Your task to perform on an android device: Open internet settings Image 0: 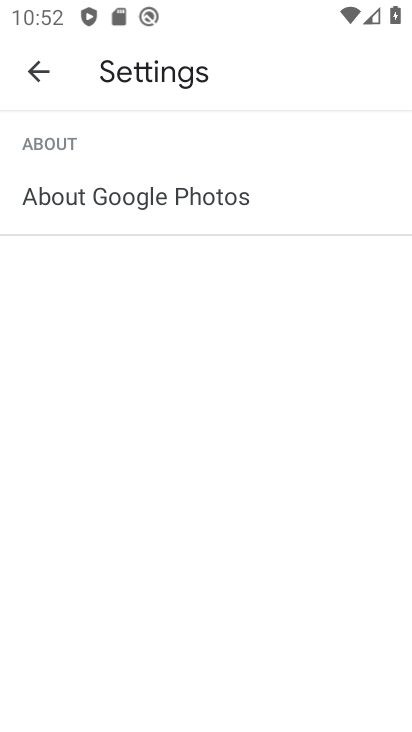
Step 0: press home button
Your task to perform on an android device: Open internet settings Image 1: 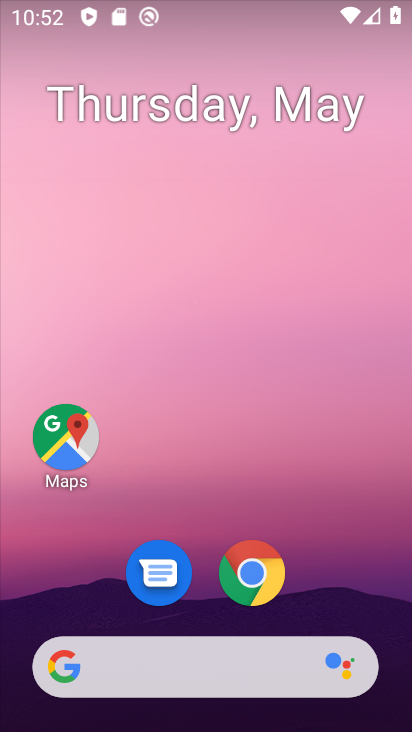
Step 1: drag from (77, 629) to (209, 112)
Your task to perform on an android device: Open internet settings Image 2: 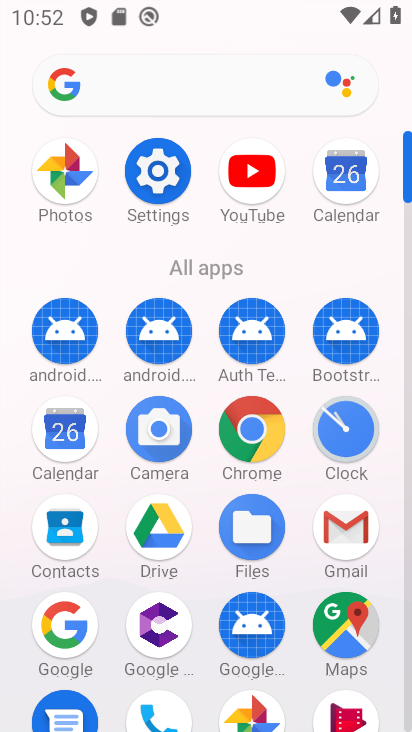
Step 2: drag from (104, 576) to (160, 279)
Your task to perform on an android device: Open internet settings Image 3: 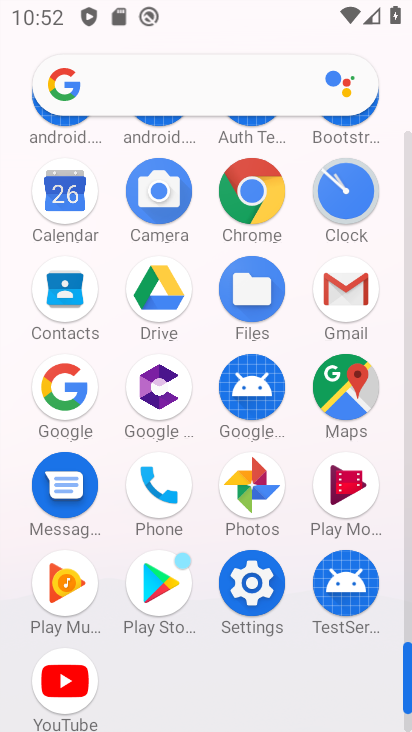
Step 3: click (259, 587)
Your task to perform on an android device: Open internet settings Image 4: 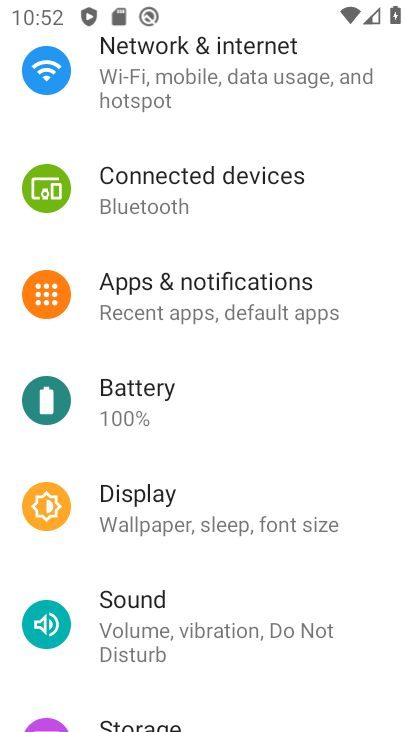
Step 4: drag from (245, 100) to (225, 415)
Your task to perform on an android device: Open internet settings Image 5: 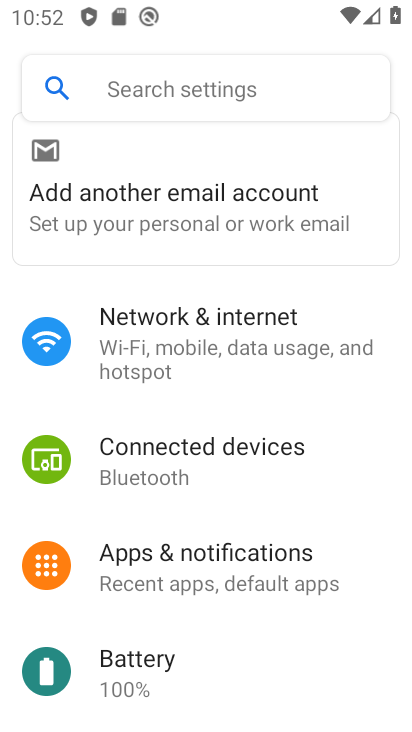
Step 5: click (225, 355)
Your task to perform on an android device: Open internet settings Image 6: 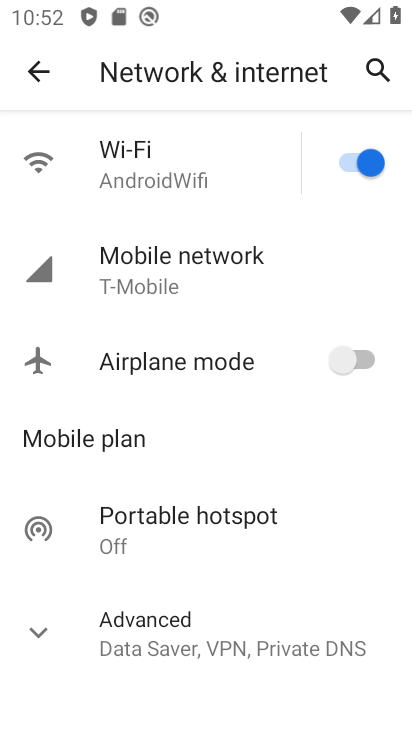
Step 6: click (216, 274)
Your task to perform on an android device: Open internet settings Image 7: 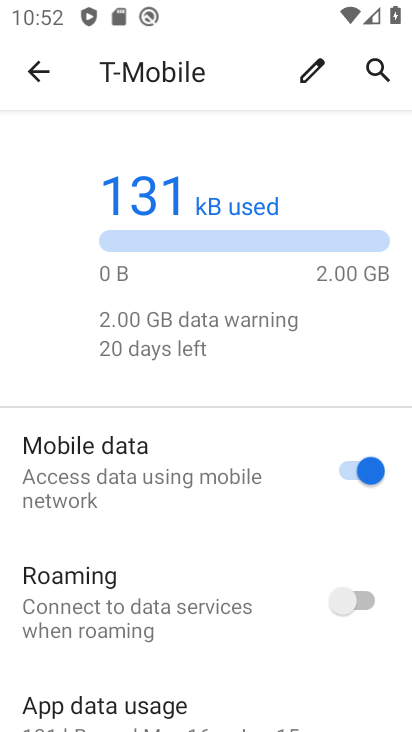
Step 7: task complete